Your task to perform on an android device: Is it going to rain tomorrow? Image 0: 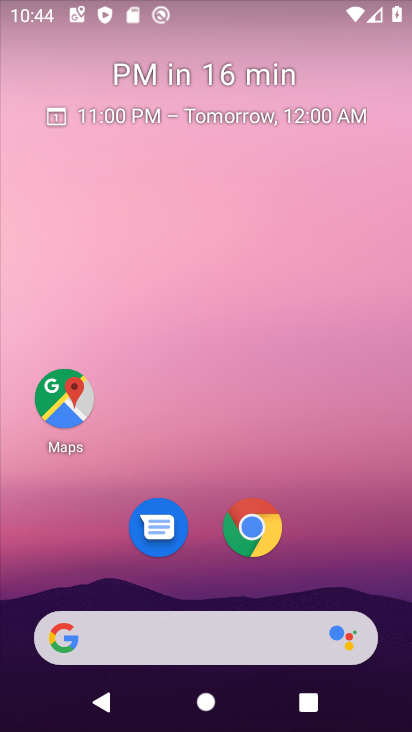
Step 0: drag from (203, 568) to (291, 74)
Your task to perform on an android device: Is it going to rain tomorrow? Image 1: 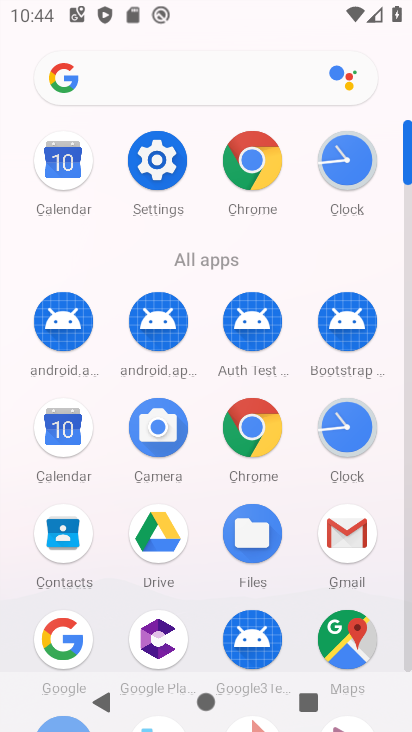
Step 1: click (121, 85)
Your task to perform on an android device: Is it going to rain tomorrow? Image 2: 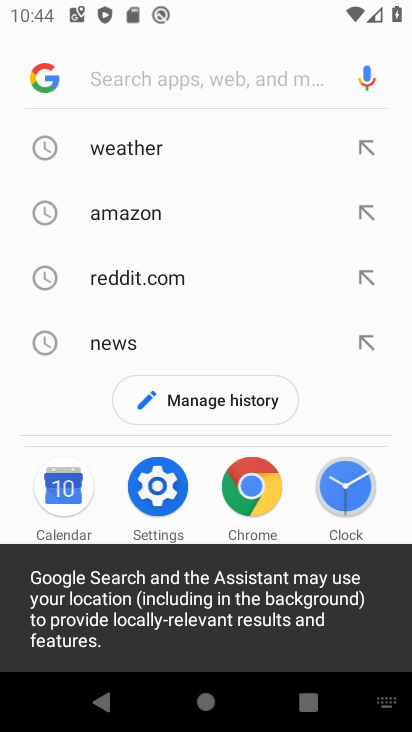
Step 2: click (126, 126)
Your task to perform on an android device: Is it going to rain tomorrow? Image 3: 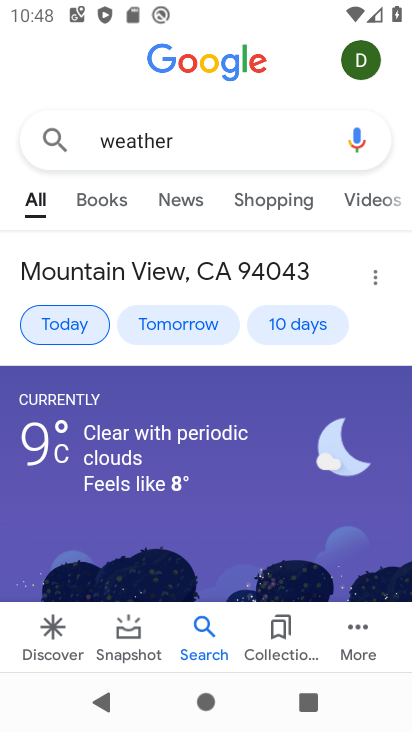
Step 3: click (165, 328)
Your task to perform on an android device: Is it going to rain tomorrow? Image 4: 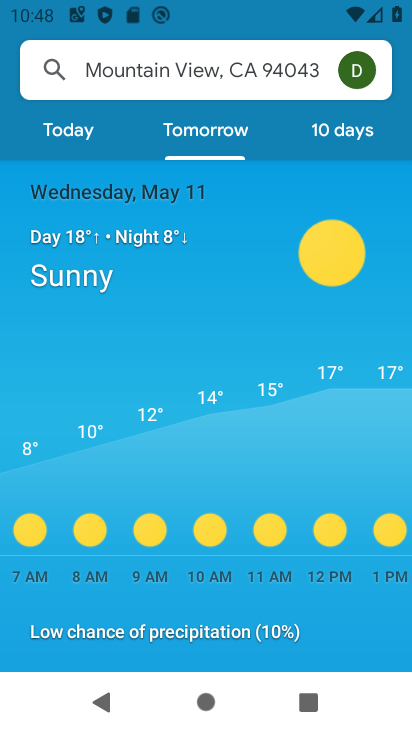
Step 4: task complete